Your task to perform on an android device: choose inbox layout in the gmail app Image 0: 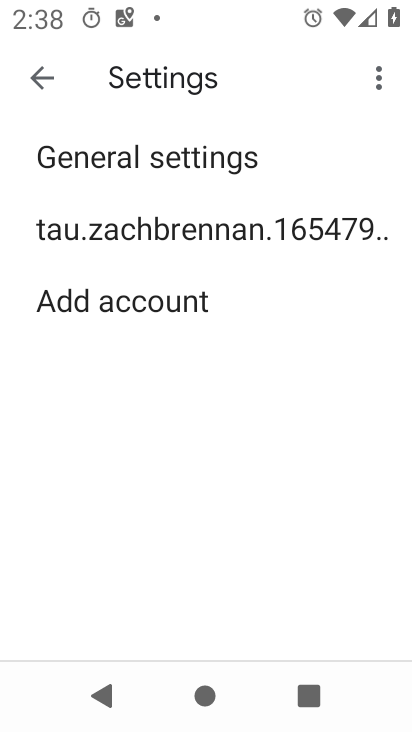
Step 0: press home button
Your task to perform on an android device: choose inbox layout in the gmail app Image 1: 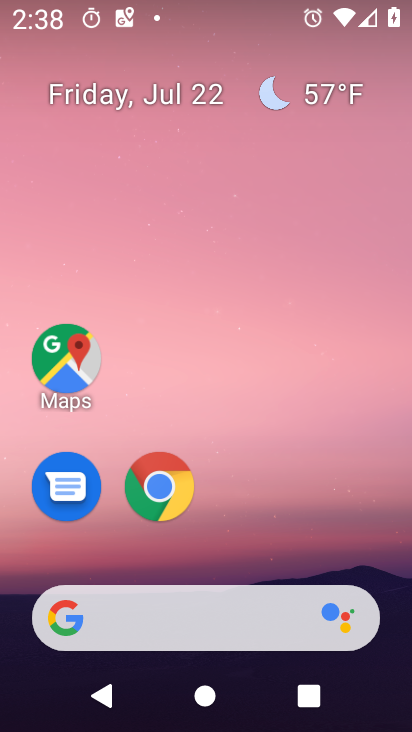
Step 1: drag from (383, 535) to (376, 121)
Your task to perform on an android device: choose inbox layout in the gmail app Image 2: 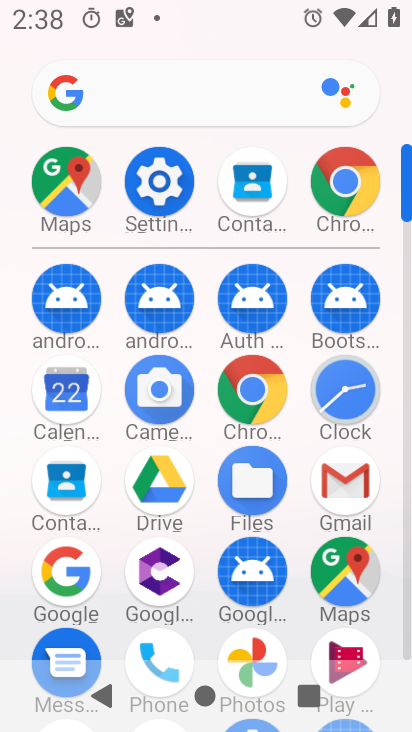
Step 2: click (342, 482)
Your task to perform on an android device: choose inbox layout in the gmail app Image 3: 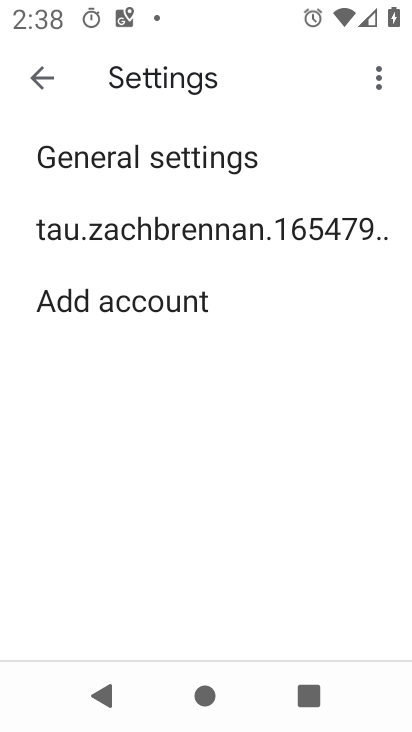
Step 3: press back button
Your task to perform on an android device: choose inbox layout in the gmail app Image 4: 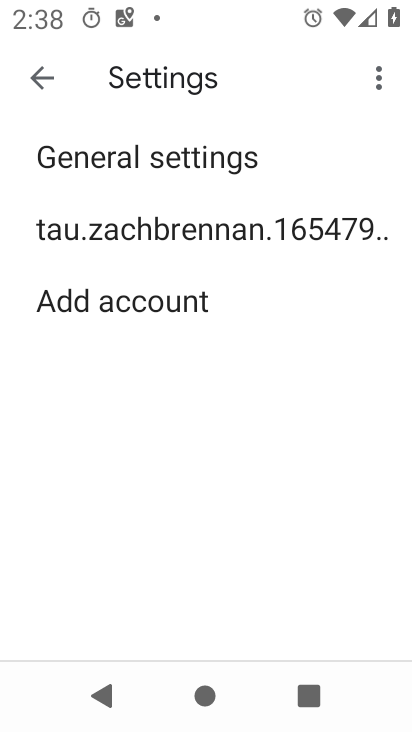
Step 4: click (322, 234)
Your task to perform on an android device: choose inbox layout in the gmail app Image 5: 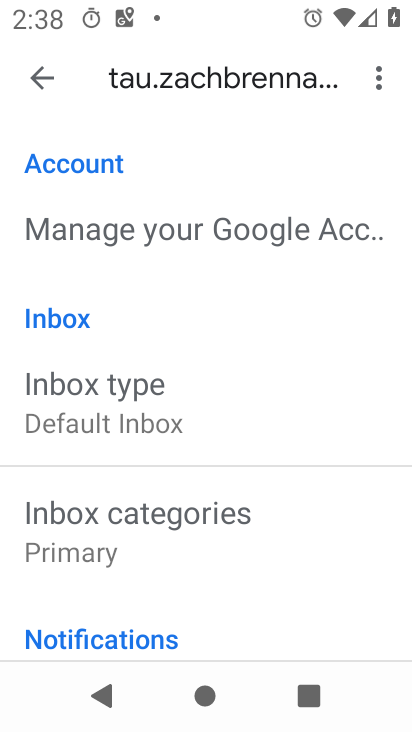
Step 5: drag from (326, 474) to (339, 411)
Your task to perform on an android device: choose inbox layout in the gmail app Image 6: 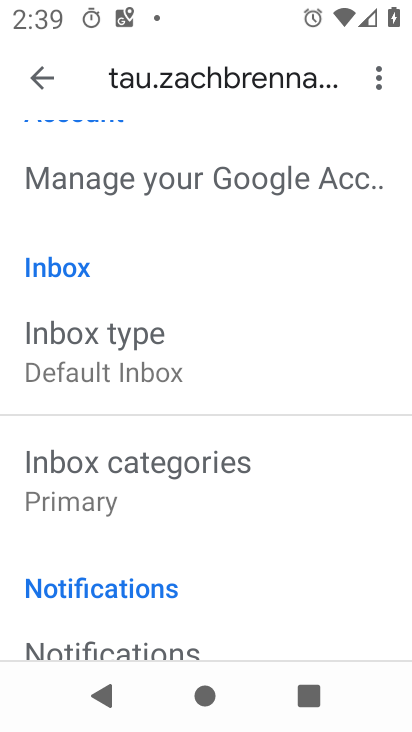
Step 6: drag from (350, 534) to (351, 441)
Your task to perform on an android device: choose inbox layout in the gmail app Image 7: 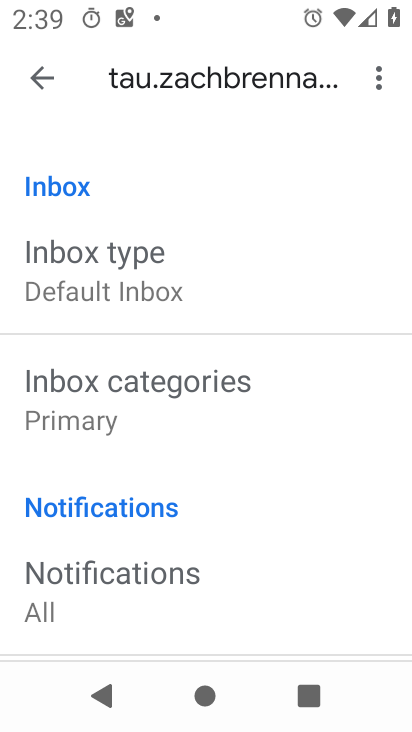
Step 7: drag from (322, 561) to (321, 457)
Your task to perform on an android device: choose inbox layout in the gmail app Image 8: 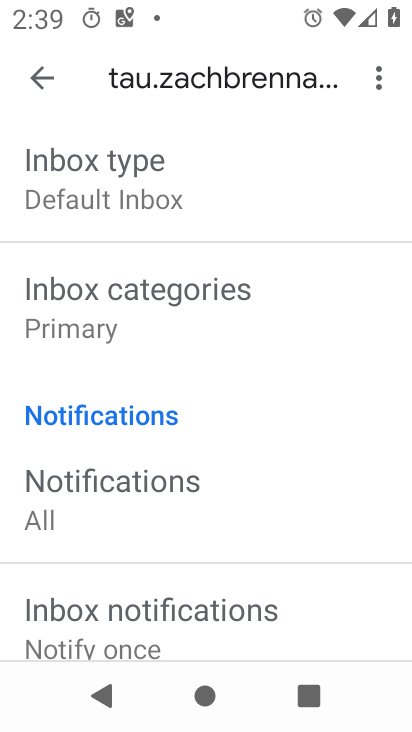
Step 8: drag from (316, 540) to (310, 414)
Your task to perform on an android device: choose inbox layout in the gmail app Image 9: 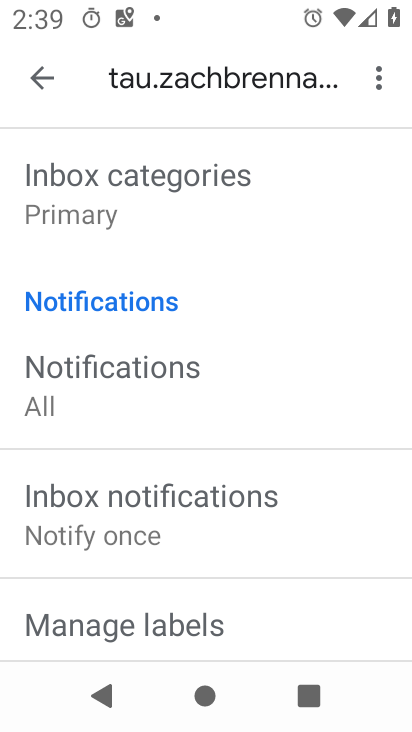
Step 9: drag from (335, 242) to (337, 332)
Your task to perform on an android device: choose inbox layout in the gmail app Image 10: 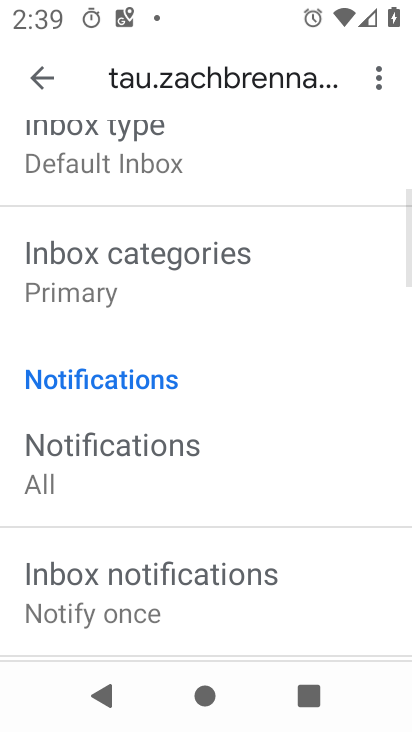
Step 10: drag from (337, 250) to (338, 343)
Your task to perform on an android device: choose inbox layout in the gmail app Image 11: 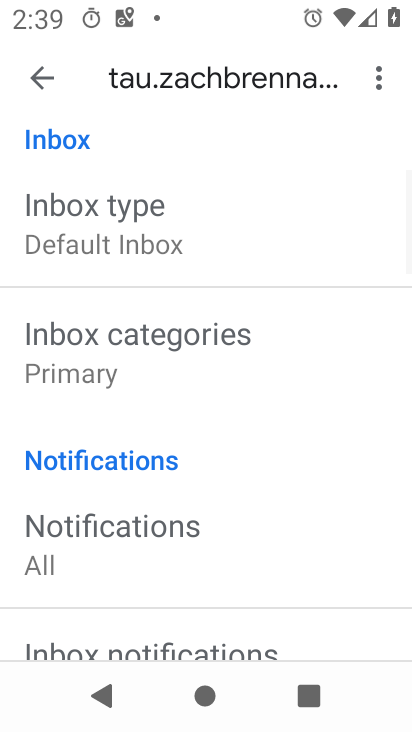
Step 11: drag from (338, 221) to (336, 356)
Your task to perform on an android device: choose inbox layout in the gmail app Image 12: 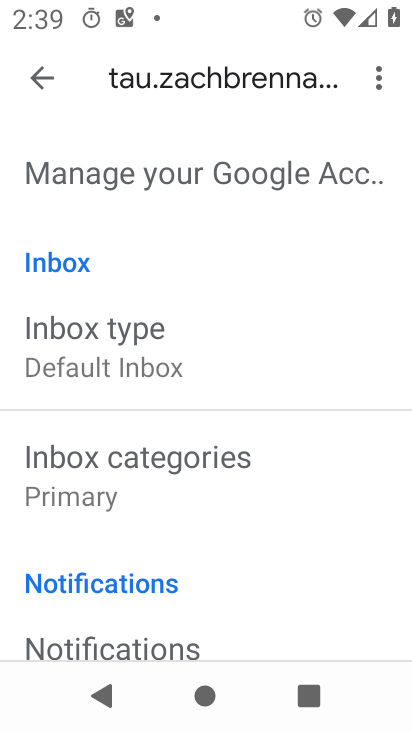
Step 12: drag from (317, 210) to (313, 370)
Your task to perform on an android device: choose inbox layout in the gmail app Image 13: 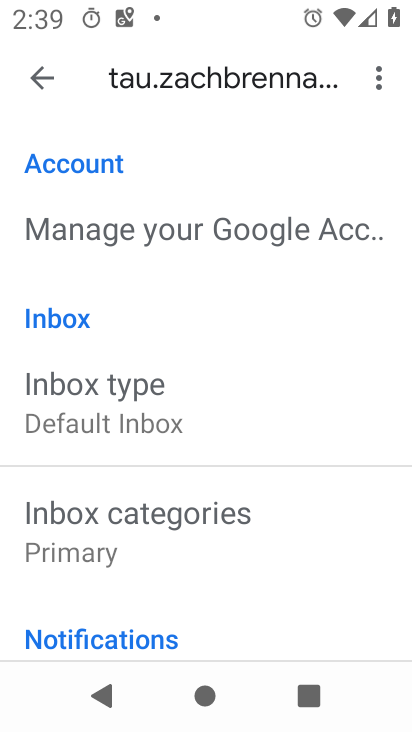
Step 13: click (209, 395)
Your task to perform on an android device: choose inbox layout in the gmail app Image 14: 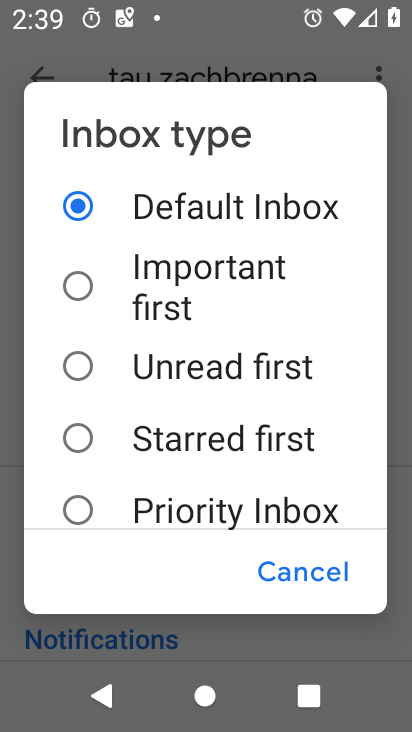
Step 14: click (234, 365)
Your task to perform on an android device: choose inbox layout in the gmail app Image 15: 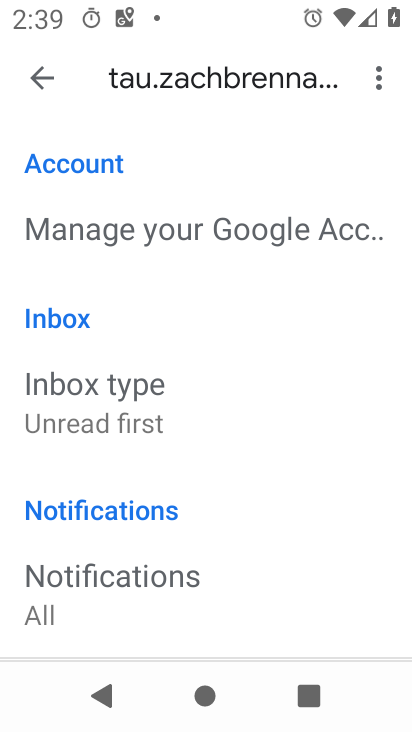
Step 15: task complete